Your task to perform on an android device: Go to battery settings Image 0: 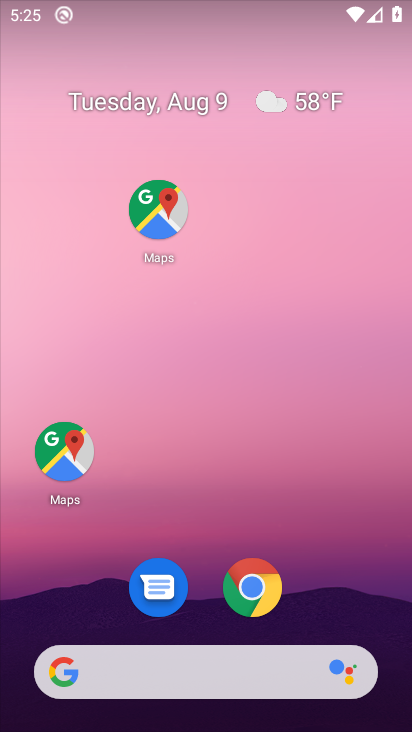
Step 0: drag from (273, 668) to (199, 74)
Your task to perform on an android device: Go to battery settings Image 1: 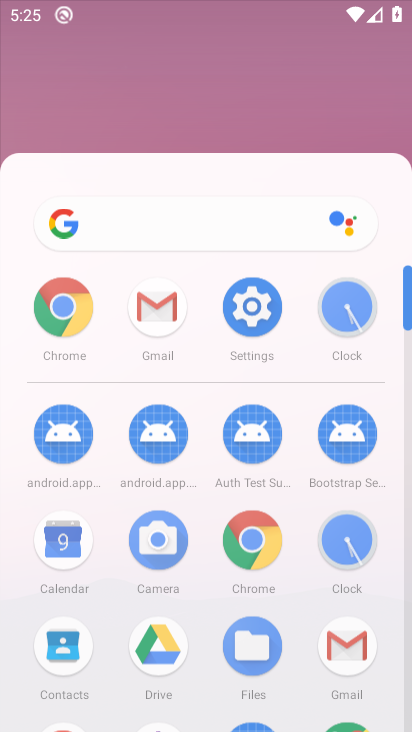
Step 1: drag from (210, 558) to (155, 50)
Your task to perform on an android device: Go to battery settings Image 2: 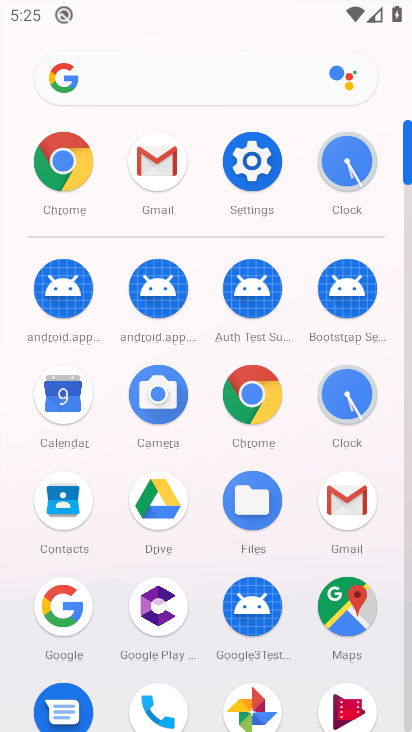
Step 2: drag from (173, 616) to (136, 120)
Your task to perform on an android device: Go to battery settings Image 3: 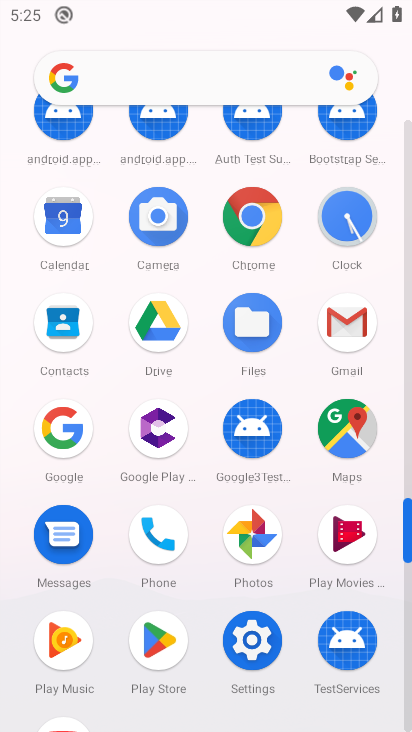
Step 3: click (245, 638)
Your task to perform on an android device: Go to battery settings Image 4: 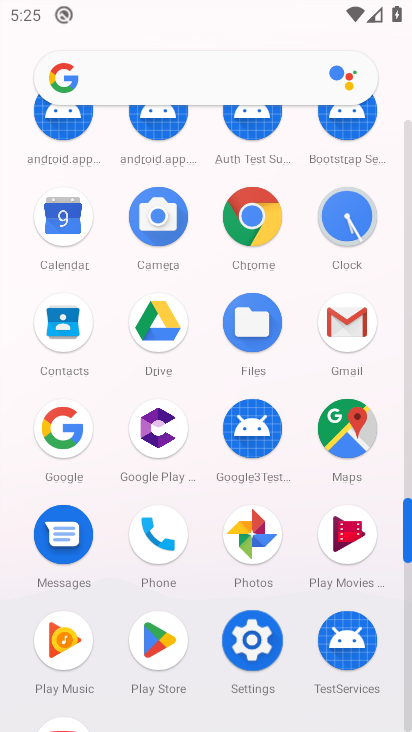
Step 4: click (250, 639)
Your task to perform on an android device: Go to battery settings Image 5: 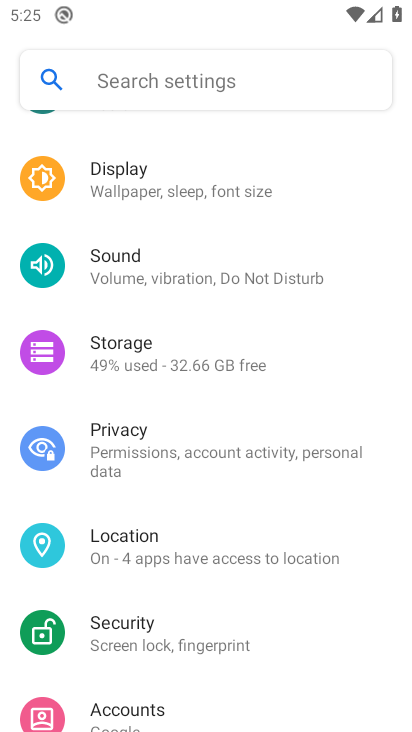
Step 5: click (265, 634)
Your task to perform on an android device: Go to battery settings Image 6: 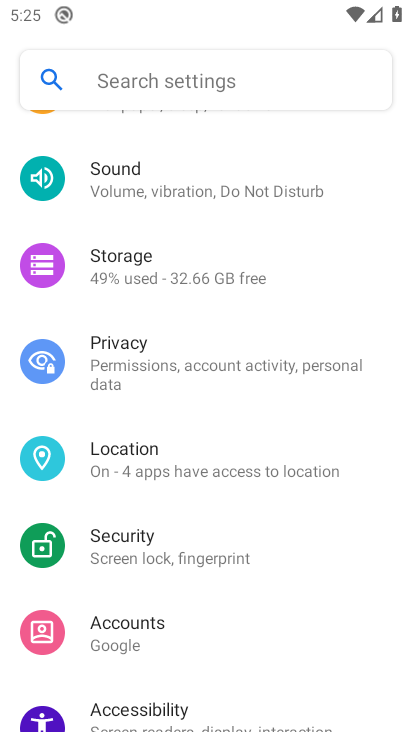
Step 6: click (264, 633)
Your task to perform on an android device: Go to battery settings Image 7: 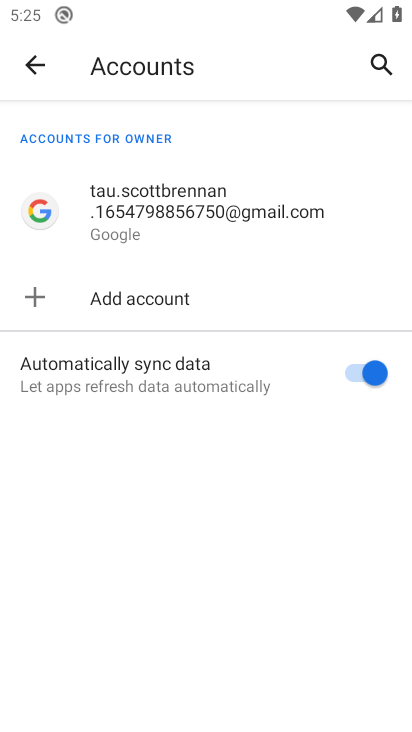
Step 7: click (27, 42)
Your task to perform on an android device: Go to battery settings Image 8: 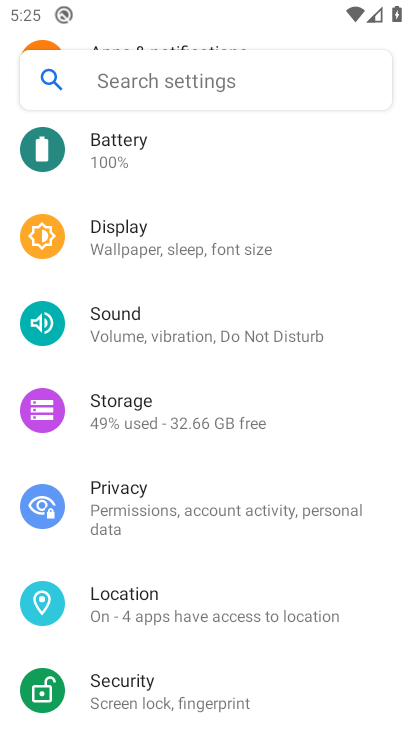
Step 8: drag from (140, 343) to (140, 292)
Your task to perform on an android device: Go to battery settings Image 9: 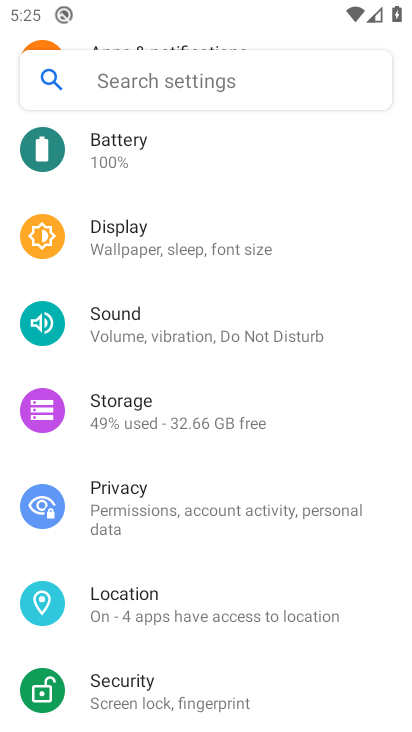
Step 9: drag from (177, 464) to (169, 104)
Your task to perform on an android device: Go to battery settings Image 10: 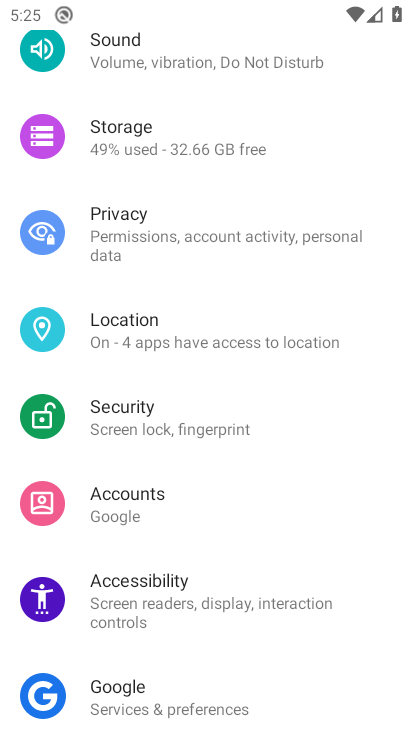
Step 10: drag from (153, 442) to (233, 558)
Your task to perform on an android device: Go to battery settings Image 11: 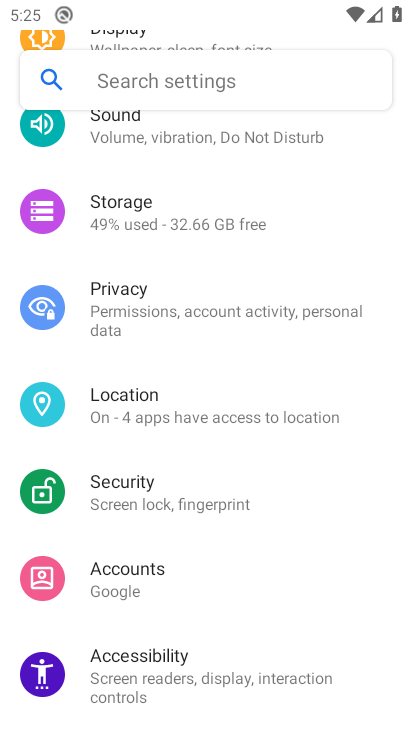
Step 11: drag from (206, 265) to (210, 539)
Your task to perform on an android device: Go to battery settings Image 12: 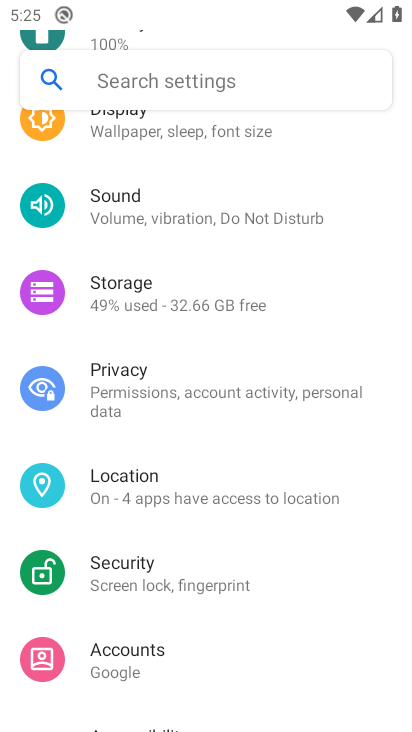
Step 12: drag from (178, 225) to (210, 533)
Your task to perform on an android device: Go to battery settings Image 13: 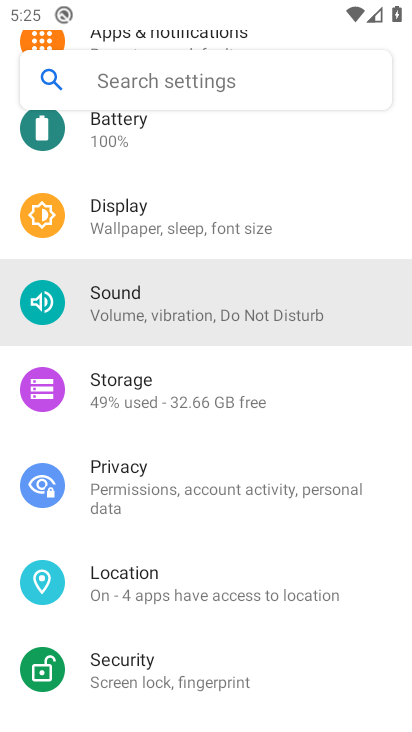
Step 13: drag from (200, 287) to (231, 501)
Your task to perform on an android device: Go to battery settings Image 14: 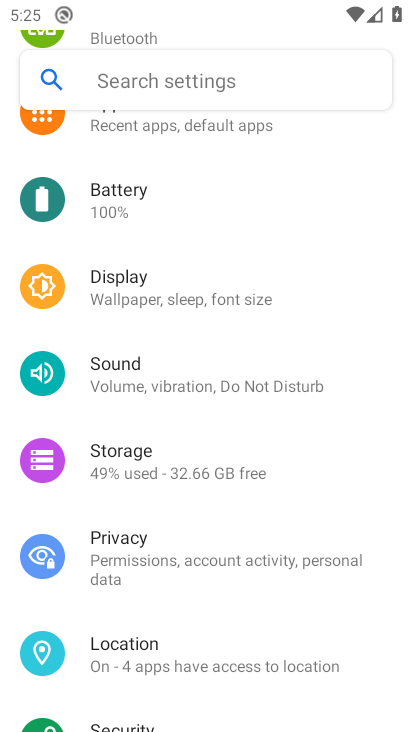
Step 14: drag from (226, 283) to (270, 552)
Your task to perform on an android device: Go to battery settings Image 15: 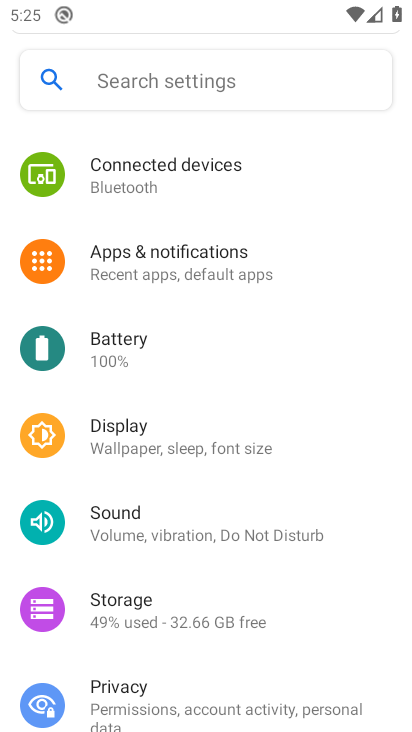
Step 15: click (144, 184)
Your task to perform on an android device: Go to battery settings Image 16: 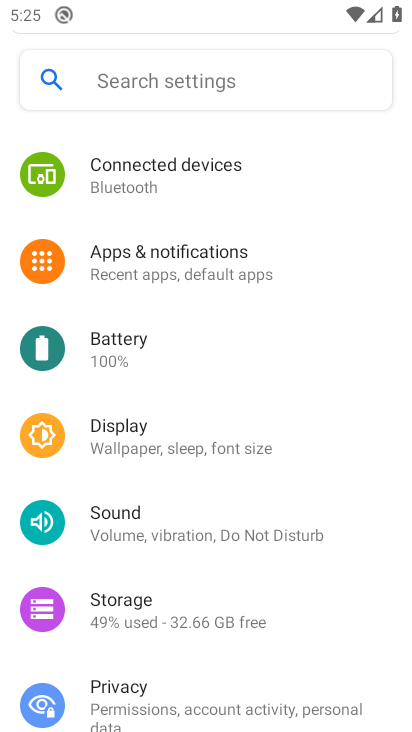
Step 16: click (130, 351)
Your task to perform on an android device: Go to battery settings Image 17: 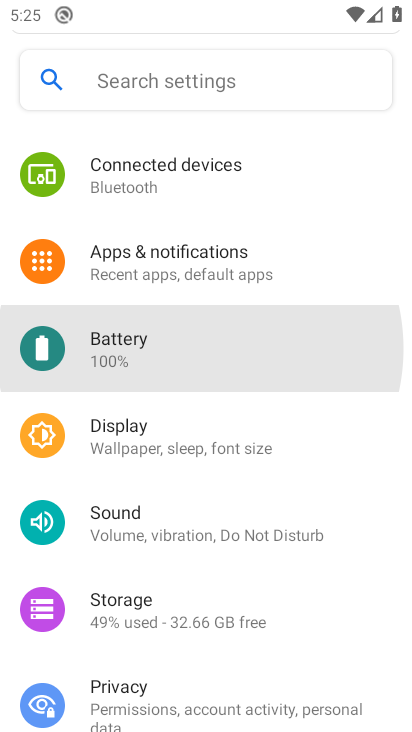
Step 17: click (123, 351)
Your task to perform on an android device: Go to battery settings Image 18: 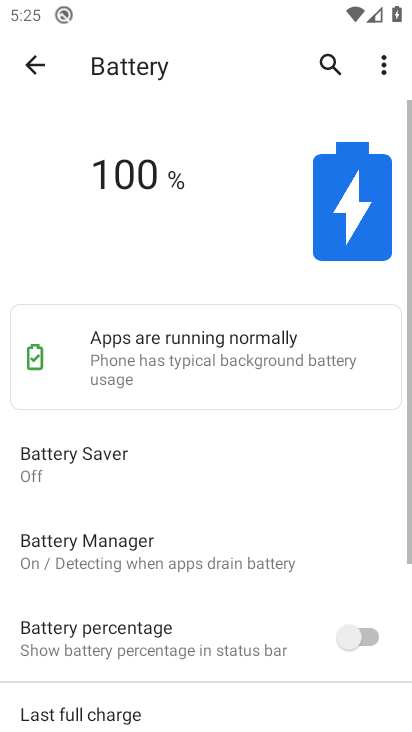
Step 18: click (122, 352)
Your task to perform on an android device: Go to battery settings Image 19: 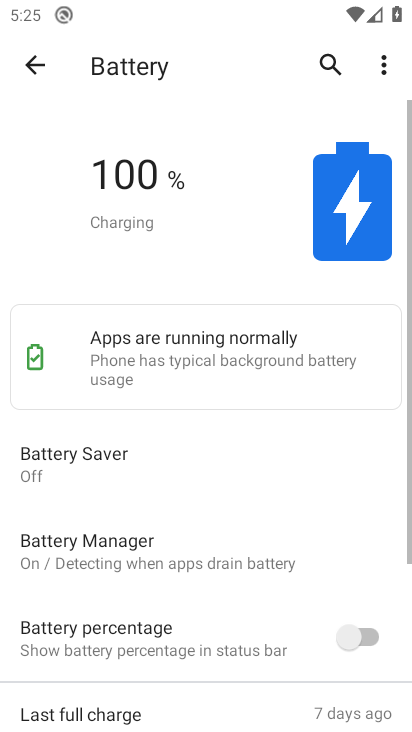
Step 19: click (123, 354)
Your task to perform on an android device: Go to battery settings Image 20: 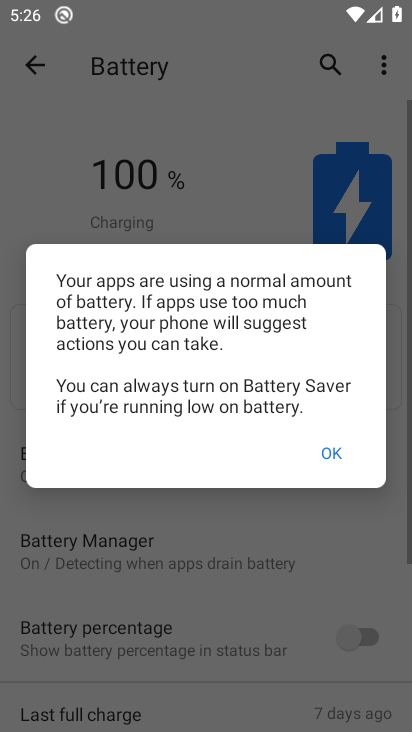
Step 20: task complete